Your task to perform on an android device: snooze an email in the gmail app Image 0: 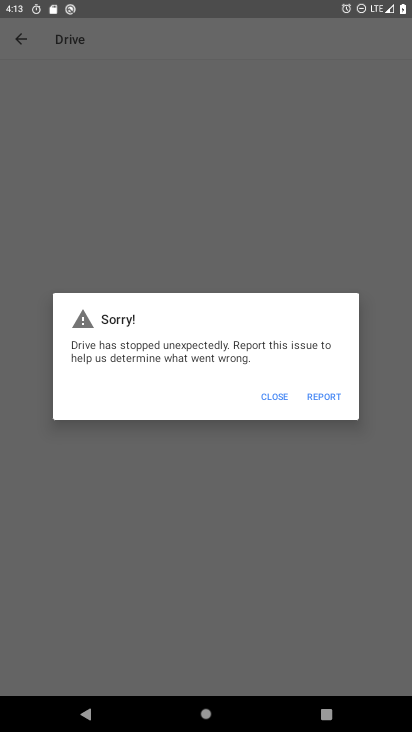
Step 0: press home button
Your task to perform on an android device: snooze an email in the gmail app Image 1: 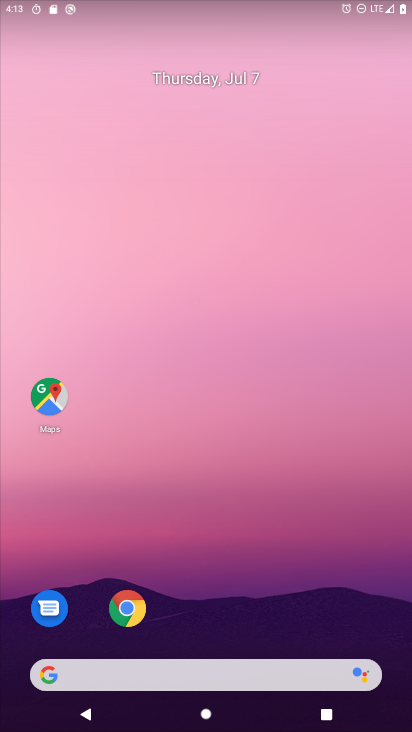
Step 1: drag from (250, 721) to (248, 114)
Your task to perform on an android device: snooze an email in the gmail app Image 2: 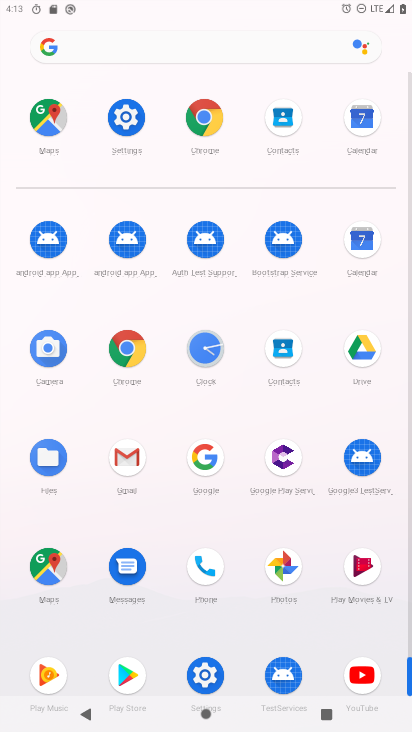
Step 2: click (125, 471)
Your task to perform on an android device: snooze an email in the gmail app Image 3: 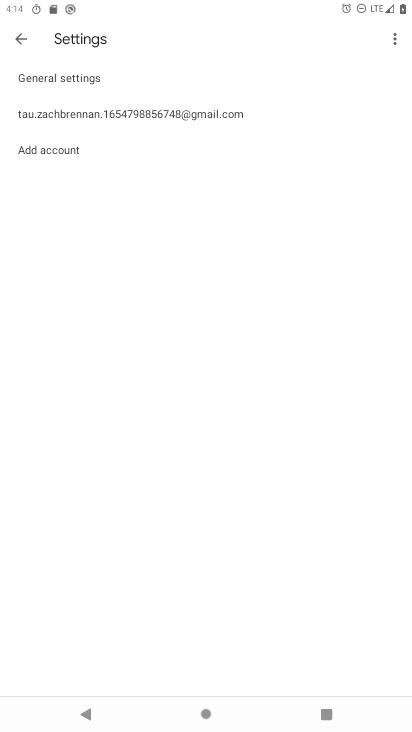
Step 3: click (23, 40)
Your task to perform on an android device: snooze an email in the gmail app Image 4: 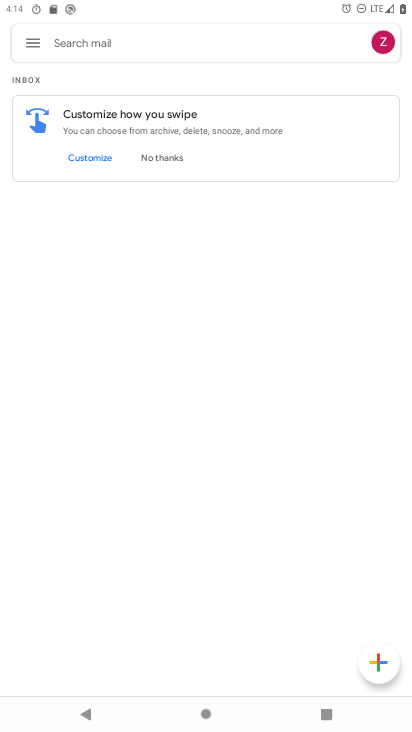
Step 4: task complete